Your task to perform on an android device: turn pop-ups off in chrome Image 0: 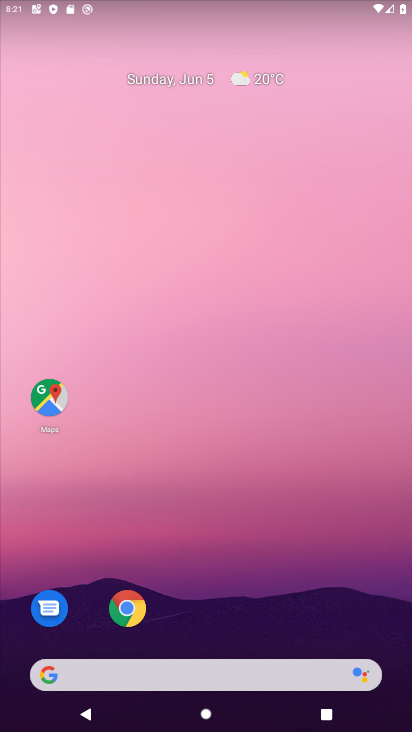
Step 0: press home button
Your task to perform on an android device: turn pop-ups off in chrome Image 1: 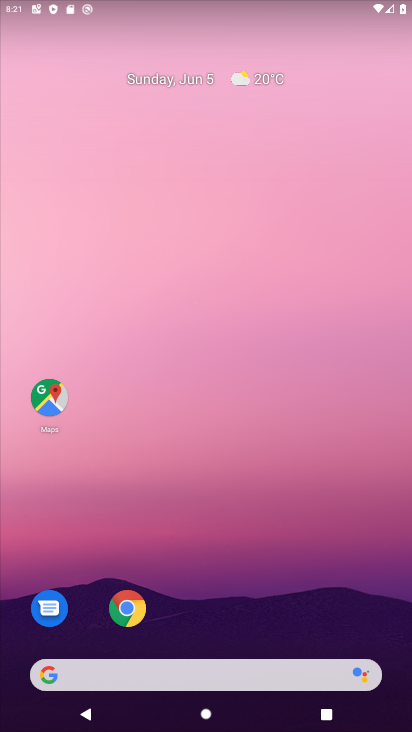
Step 1: drag from (22, 620) to (292, 59)
Your task to perform on an android device: turn pop-ups off in chrome Image 2: 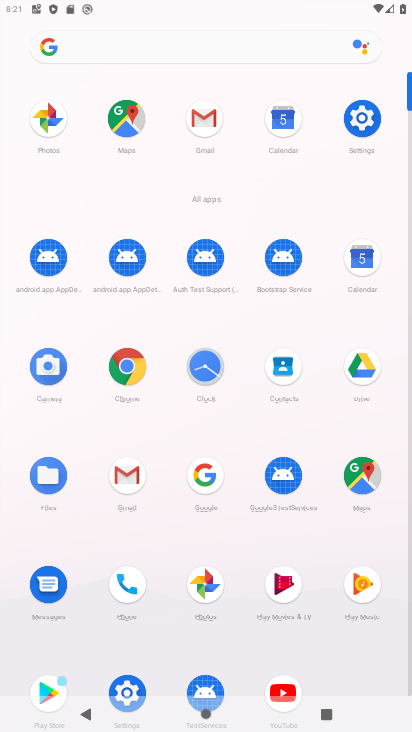
Step 2: click (130, 361)
Your task to perform on an android device: turn pop-ups off in chrome Image 3: 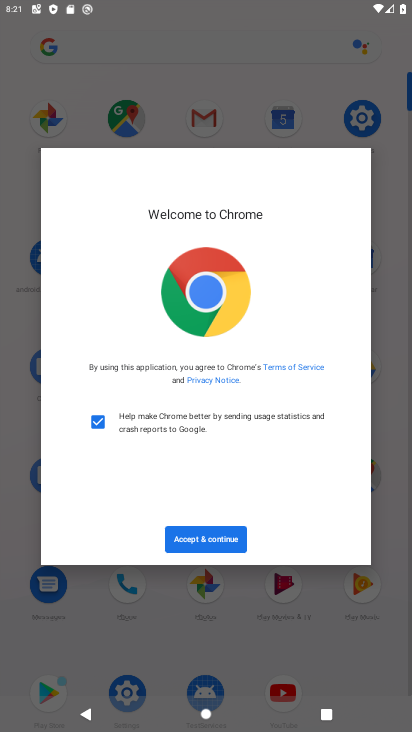
Step 3: click (217, 528)
Your task to perform on an android device: turn pop-ups off in chrome Image 4: 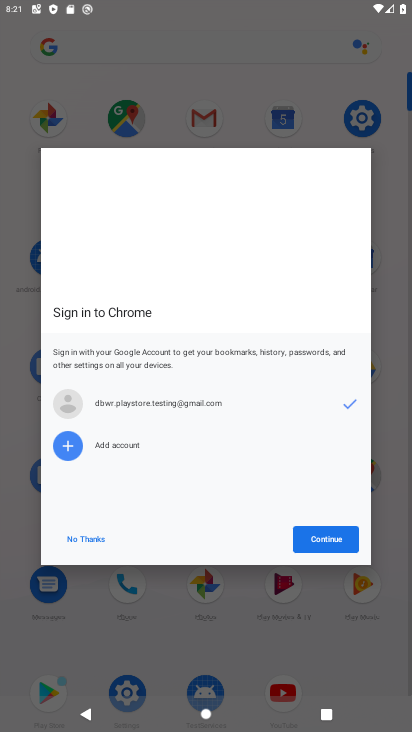
Step 4: click (75, 535)
Your task to perform on an android device: turn pop-ups off in chrome Image 5: 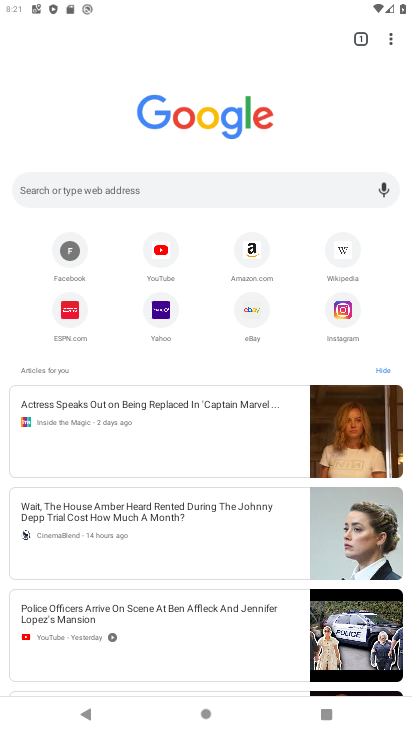
Step 5: click (394, 35)
Your task to perform on an android device: turn pop-ups off in chrome Image 6: 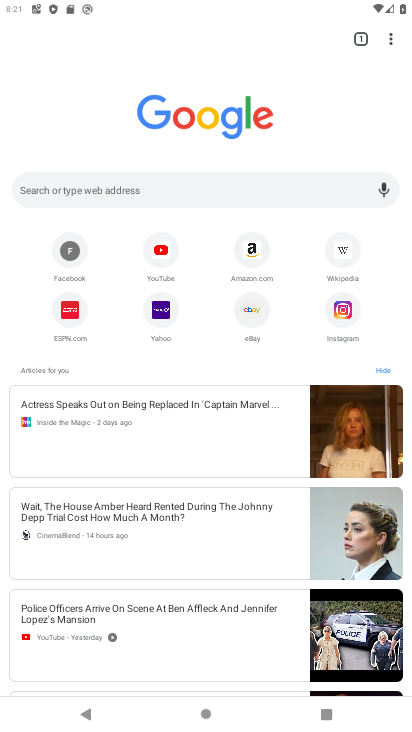
Step 6: click (388, 34)
Your task to perform on an android device: turn pop-ups off in chrome Image 7: 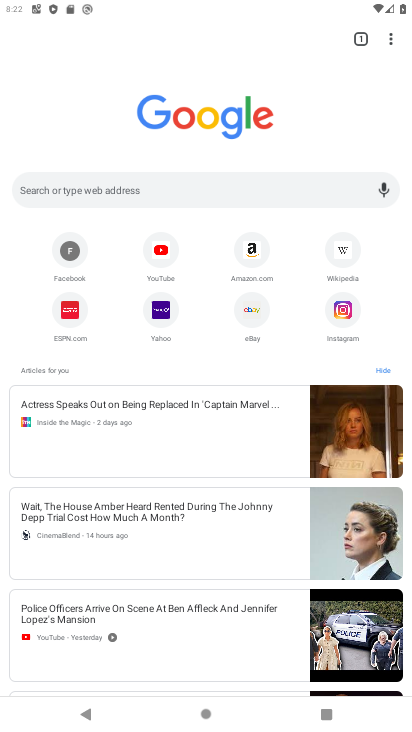
Step 7: click (389, 35)
Your task to perform on an android device: turn pop-ups off in chrome Image 8: 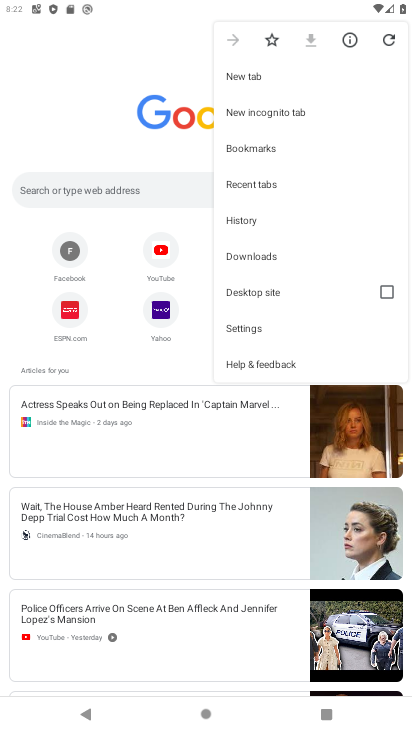
Step 8: click (242, 334)
Your task to perform on an android device: turn pop-ups off in chrome Image 9: 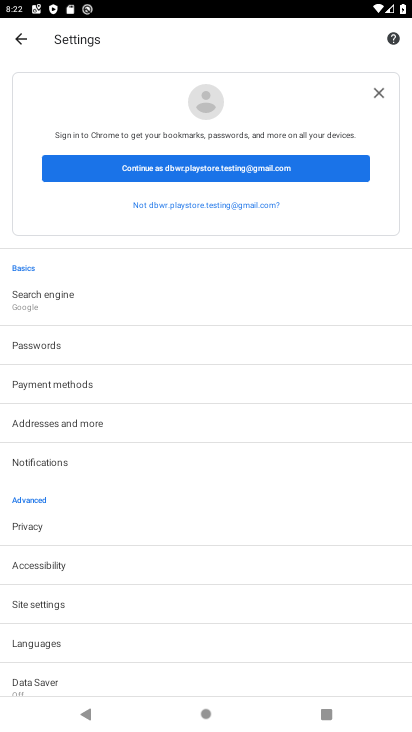
Step 9: click (378, 94)
Your task to perform on an android device: turn pop-ups off in chrome Image 10: 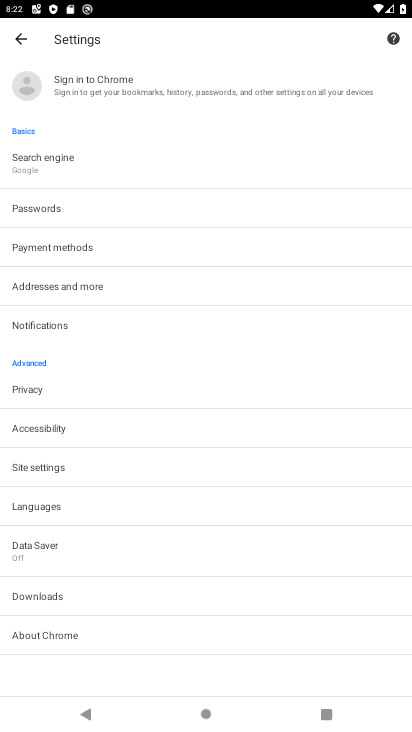
Step 10: click (42, 467)
Your task to perform on an android device: turn pop-ups off in chrome Image 11: 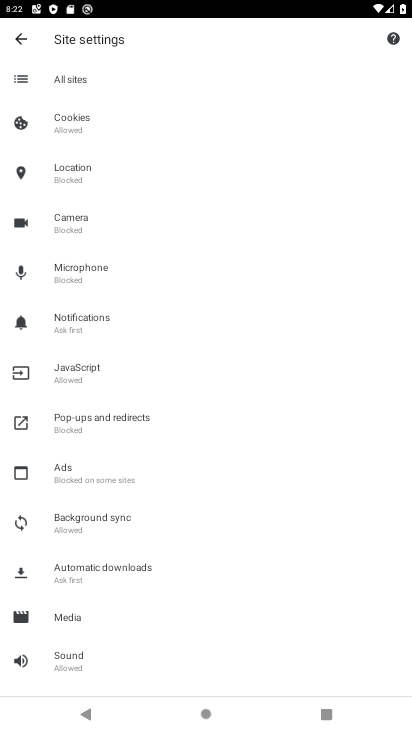
Step 11: click (96, 426)
Your task to perform on an android device: turn pop-ups off in chrome Image 12: 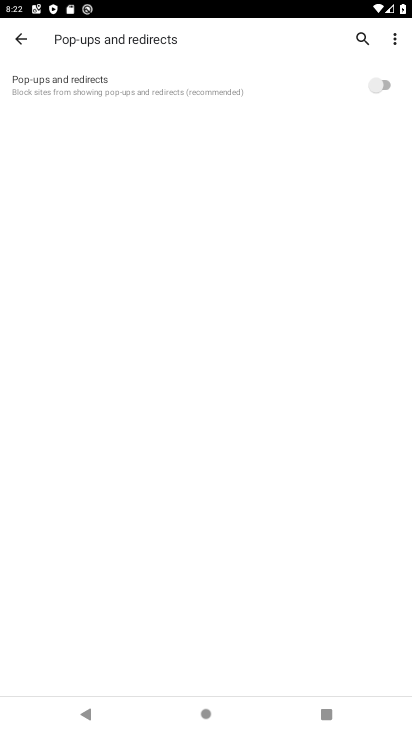
Step 12: task complete